Your task to perform on an android device: Go to Yahoo.com Image 0: 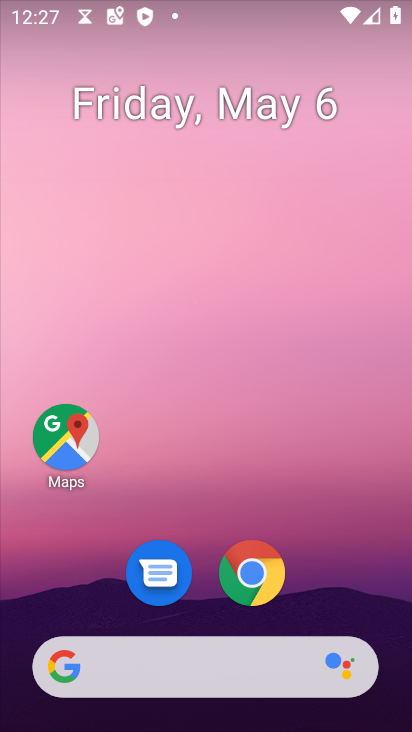
Step 0: drag from (310, 566) to (338, 241)
Your task to perform on an android device: Go to Yahoo.com Image 1: 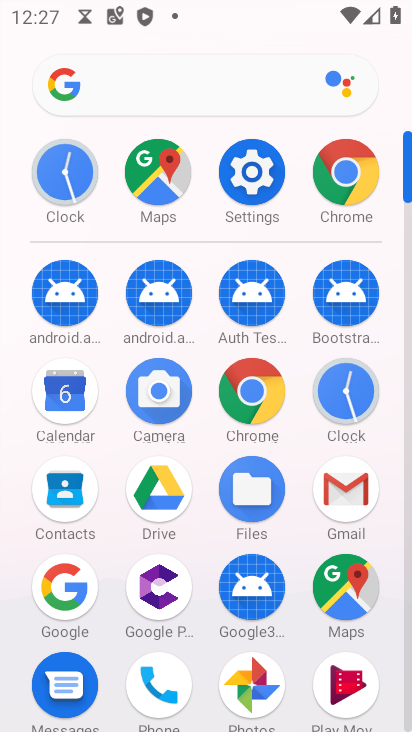
Step 1: click (242, 398)
Your task to perform on an android device: Go to Yahoo.com Image 2: 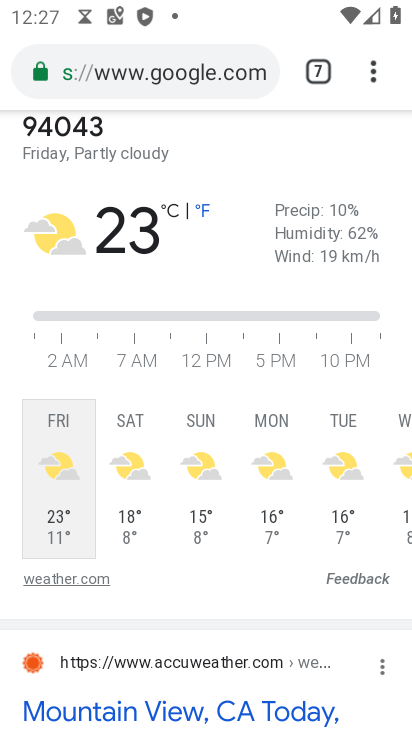
Step 2: click (362, 69)
Your task to perform on an android device: Go to Yahoo.com Image 3: 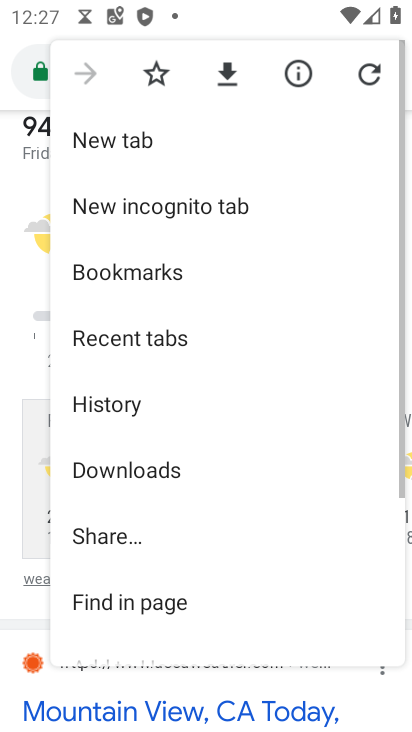
Step 3: click (142, 143)
Your task to perform on an android device: Go to Yahoo.com Image 4: 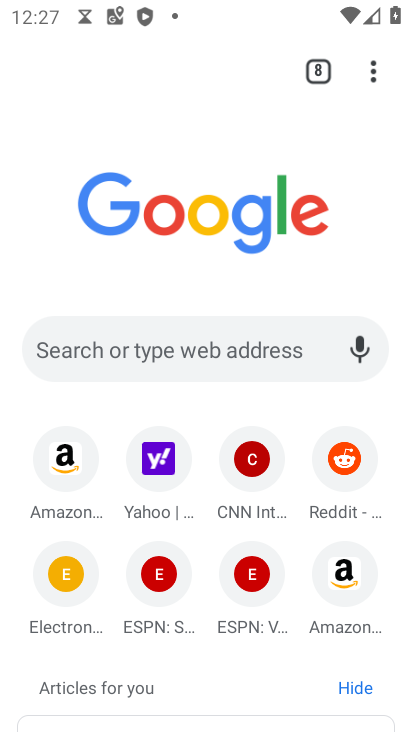
Step 4: click (149, 460)
Your task to perform on an android device: Go to Yahoo.com Image 5: 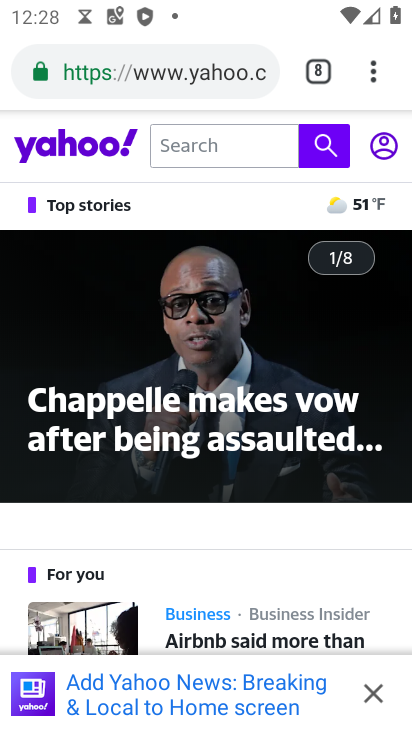
Step 5: task complete